Your task to perform on an android device: toggle sleep mode Image 0: 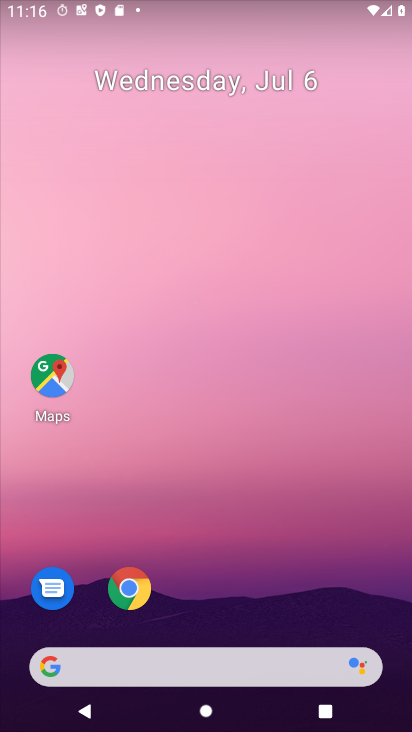
Step 0: drag from (224, 714) to (224, 598)
Your task to perform on an android device: toggle sleep mode Image 1: 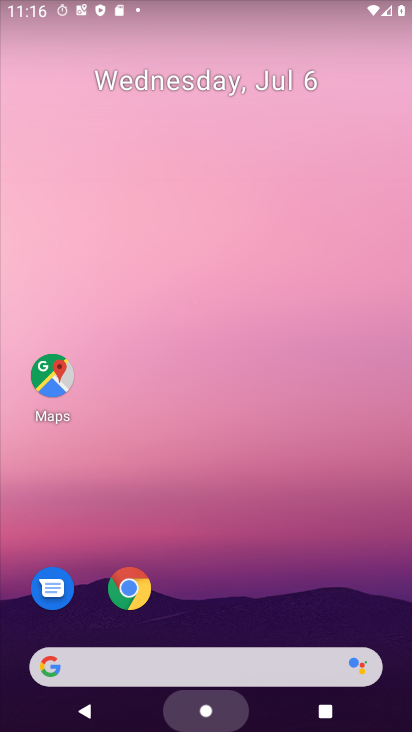
Step 1: drag from (210, 171) to (205, 101)
Your task to perform on an android device: toggle sleep mode Image 2: 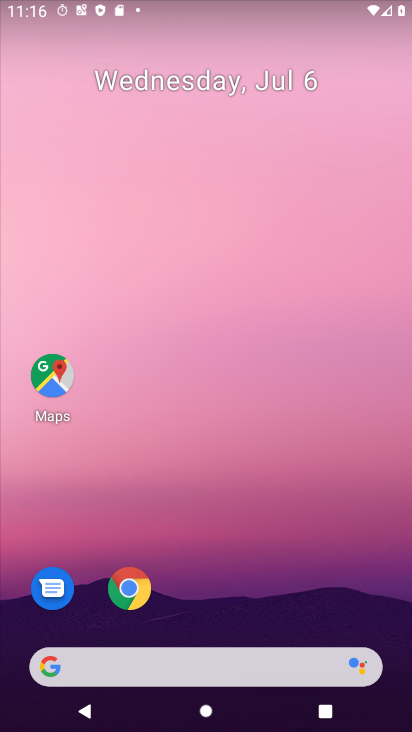
Step 2: drag from (263, 726) to (260, 263)
Your task to perform on an android device: toggle sleep mode Image 3: 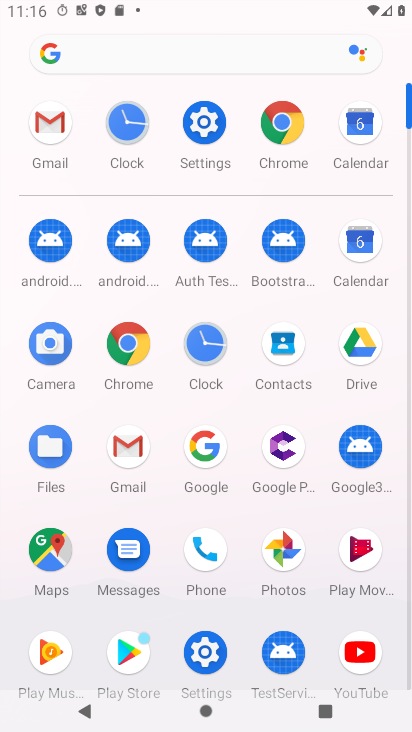
Step 3: click (203, 122)
Your task to perform on an android device: toggle sleep mode Image 4: 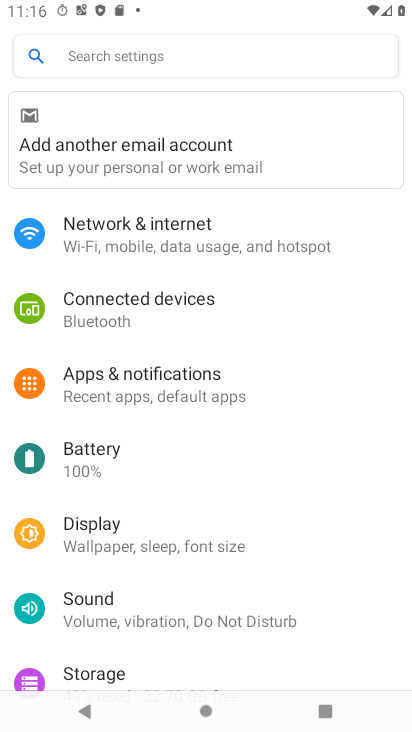
Step 4: click (151, 547)
Your task to perform on an android device: toggle sleep mode Image 5: 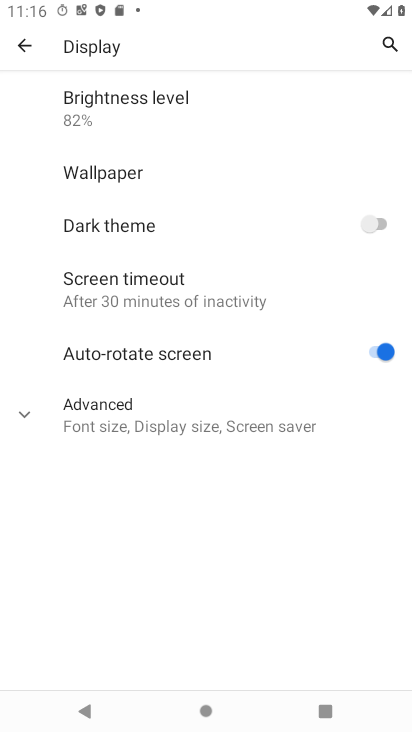
Step 5: task complete